Your task to perform on an android device: Open internet settings Image 0: 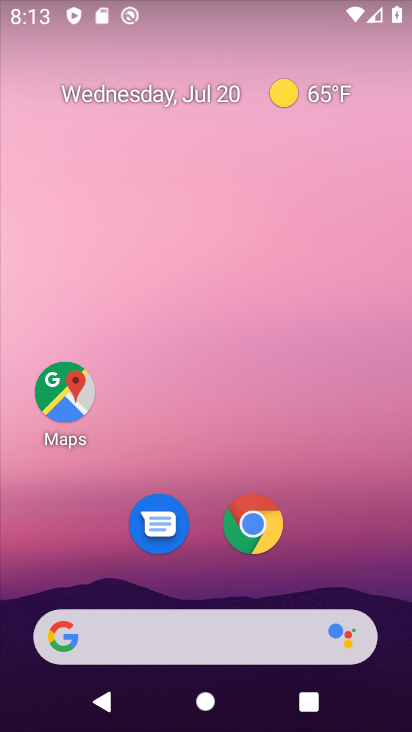
Step 0: drag from (333, 536) to (375, 61)
Your task to perform on an android device: Open internet settings Image 1: 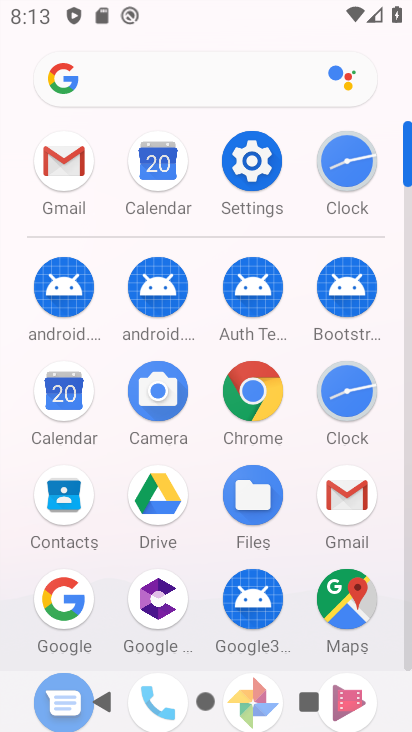
Step 1: click (253, 168)
Your task to perform on an android device: Open internet settings Image 2: 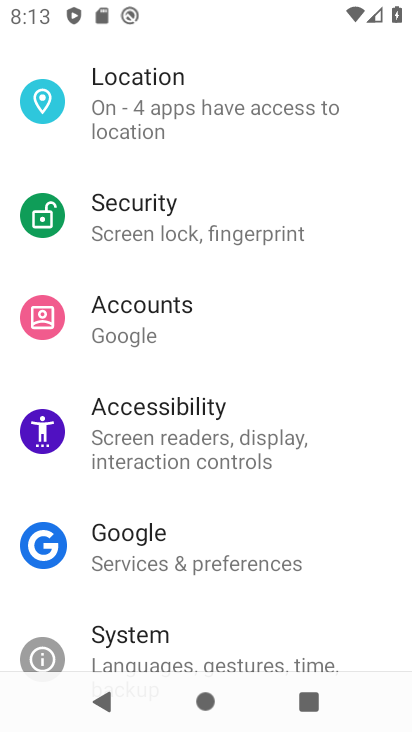
Step 2: drag from (244, 186) to (252, 398)
Your task to perform on an android device: Open internet settings Image 3: 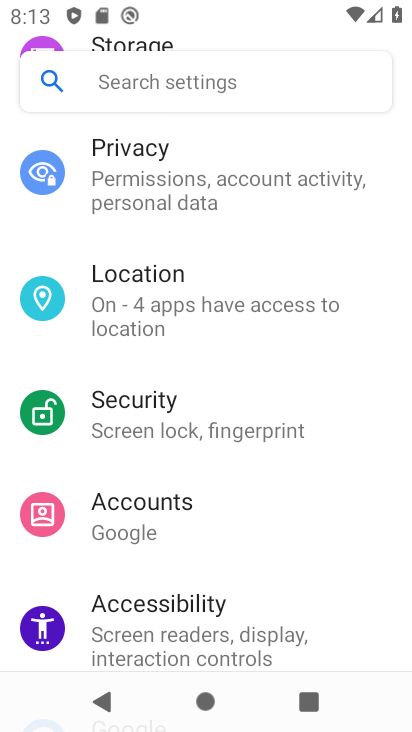
Step 3: drag from (242, 296) to (248, 475)
Your task to perform on an android device: Open internet settings Image 4: 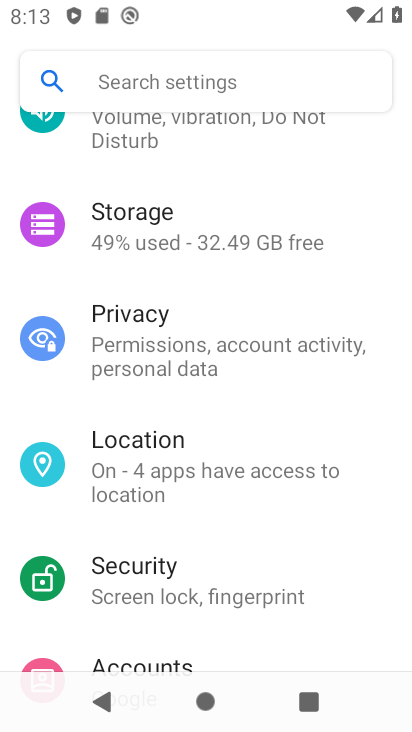
Step 4: drag from (222, 187) to (233, 491)
Your task to perform on an android device: Open internet settings Image 5: 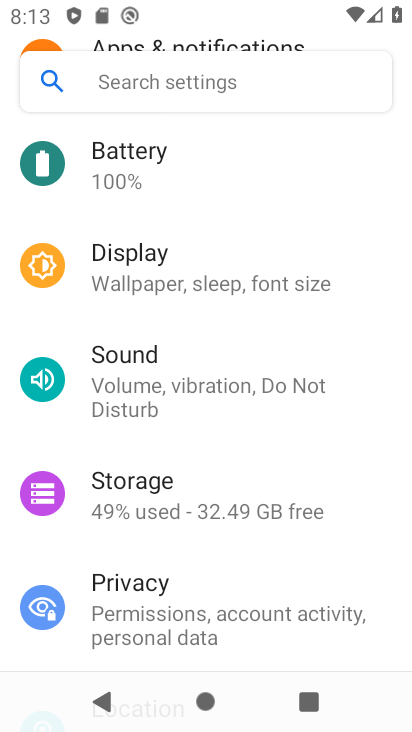
Step 5: drag from (209, 225) to (248, 464)
Your task to perform on an android device: Open internet settings Image 6: 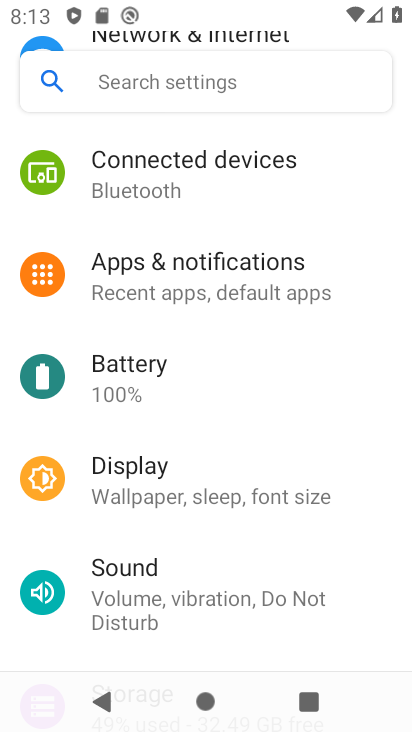
Step 6: drag from (219, 194) to (252, 489)
Your task to perform on an android device: Open internet settings Image 7: 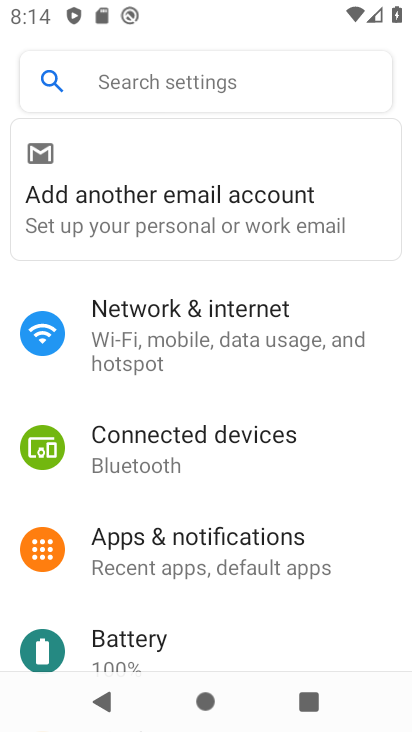
Step 7: click (213, 328)
Your task to perform on an android device: Open internet settings Image 8: 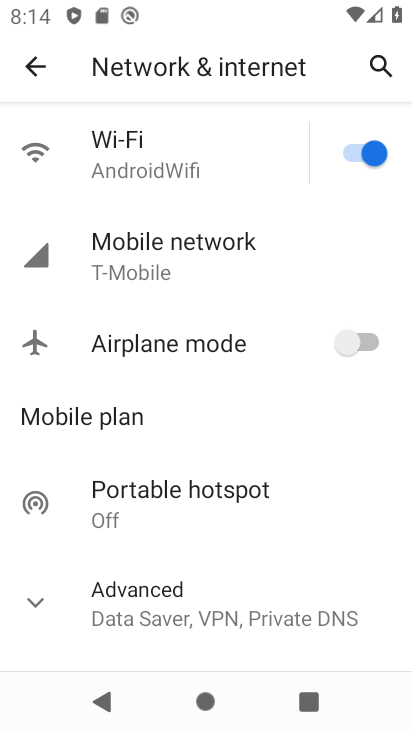
Step 8: task complete